Your task to perform on an android device: turn off location history Image 0: 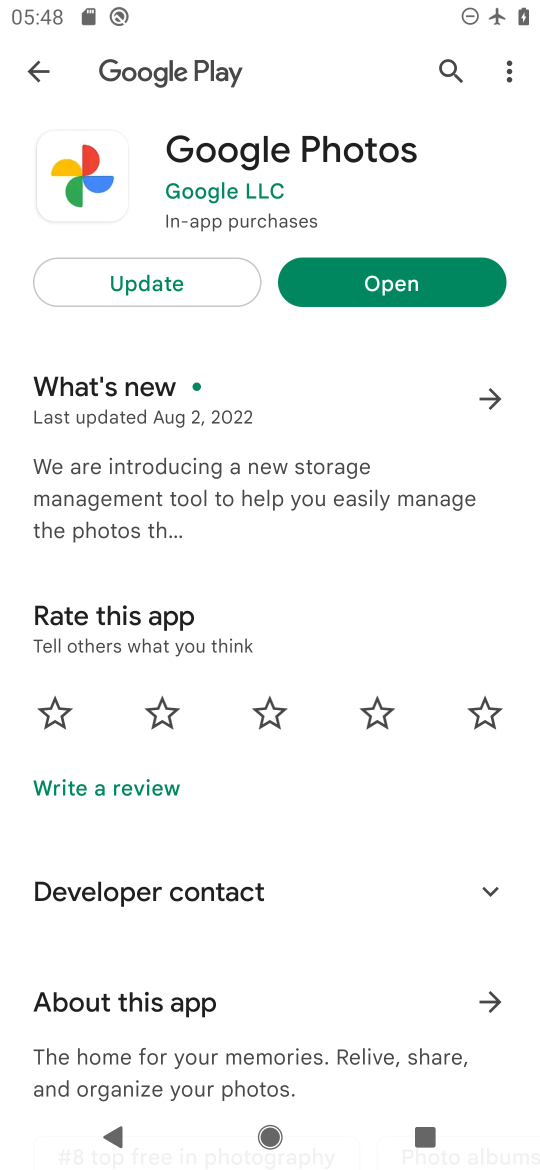
Step 0: press home button
Your task to perform on an android device: turn off location history Image 1: 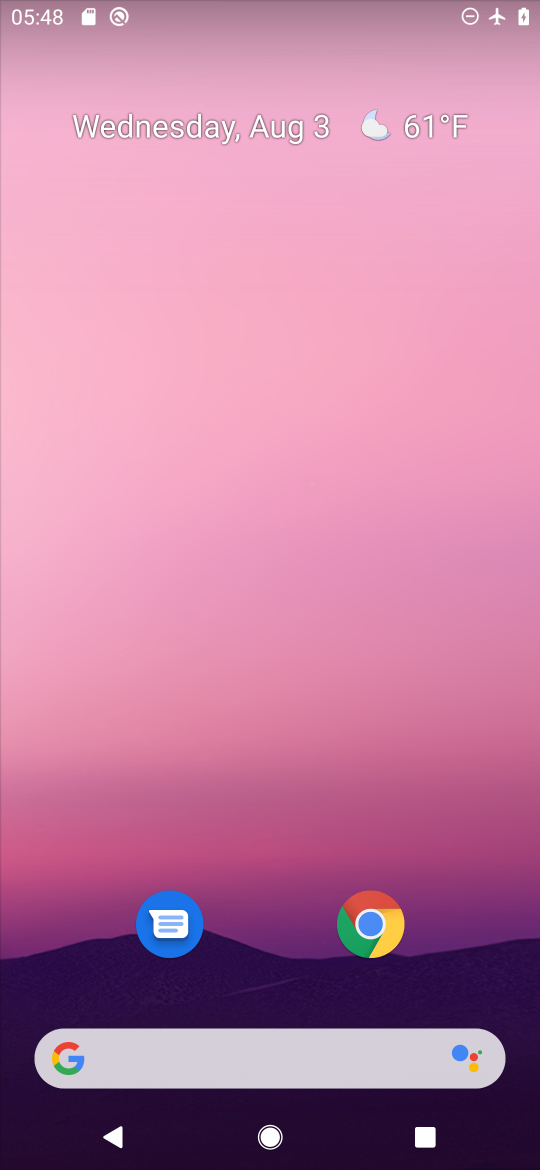
Step 1: drag from (274, 952) to (249, 222)
Your task to perform on an android device: turn off location history Image 2: 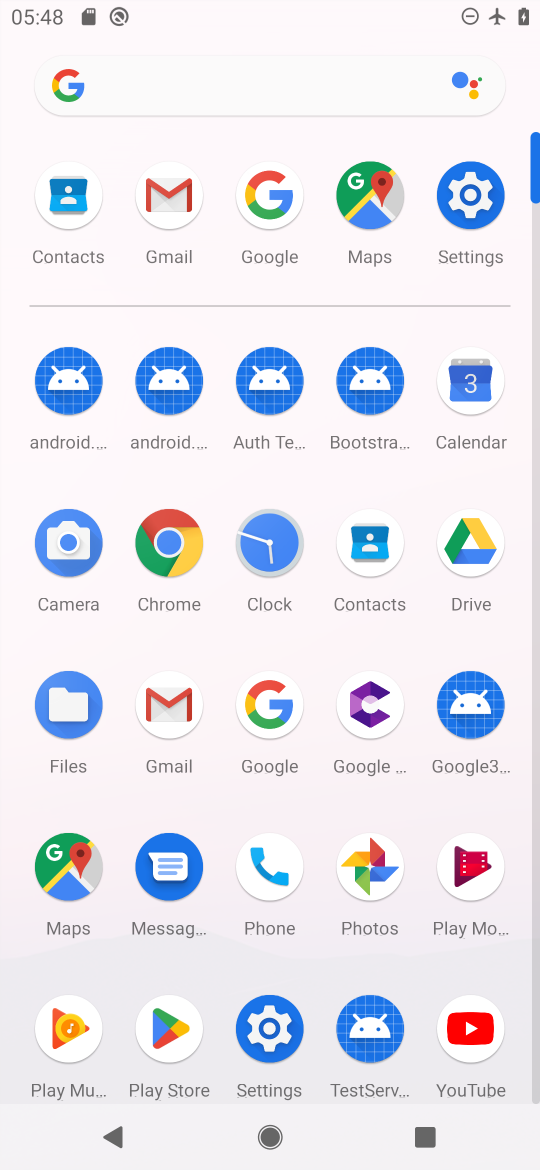
Step 2: click (485, 216)
Your task to perform on an android device: turn off location history Image 3: 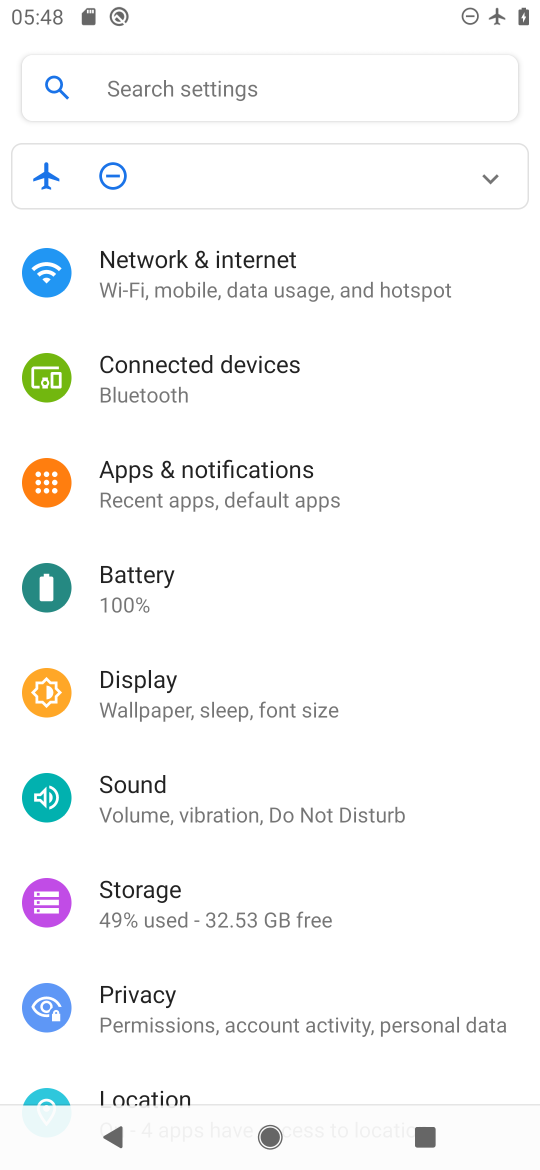
Step 3: drag from (292, 924) to (318, 439)
Your task to perform on an android device: turn off location history Image 4: 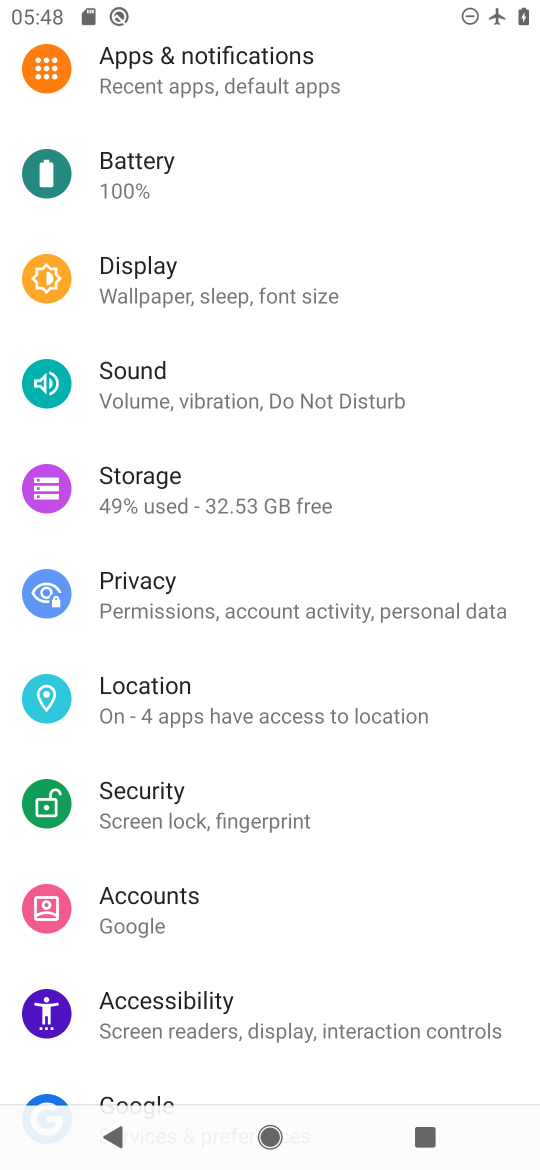
Step 4: click (275, 692)
Your task to perform on an android device: turn off location history Image 5: 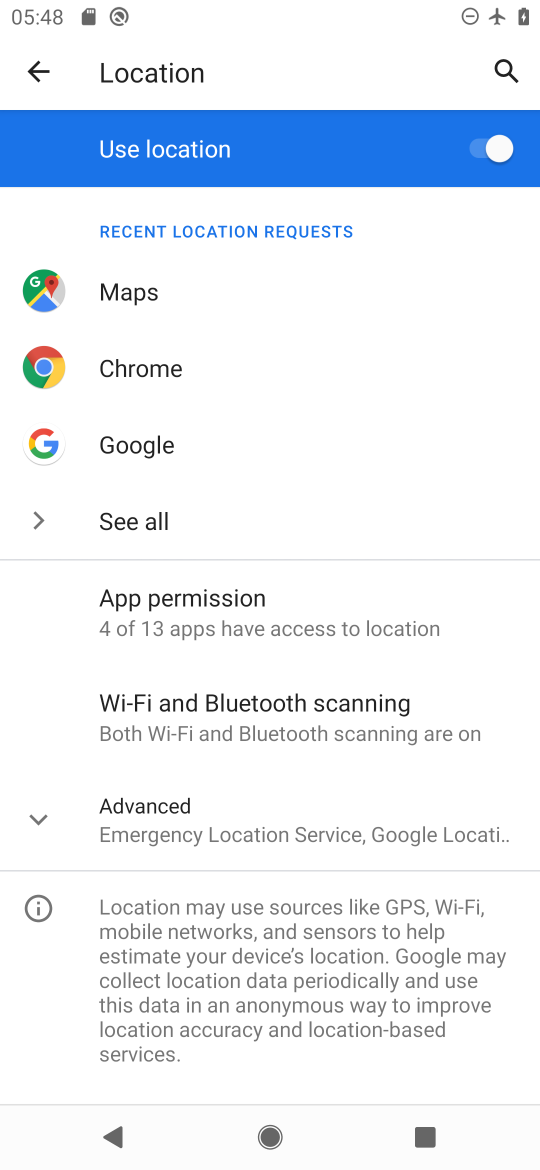
Step 5: click (230, 818)
Your task to perform on an android device: turn off location history Image 6: 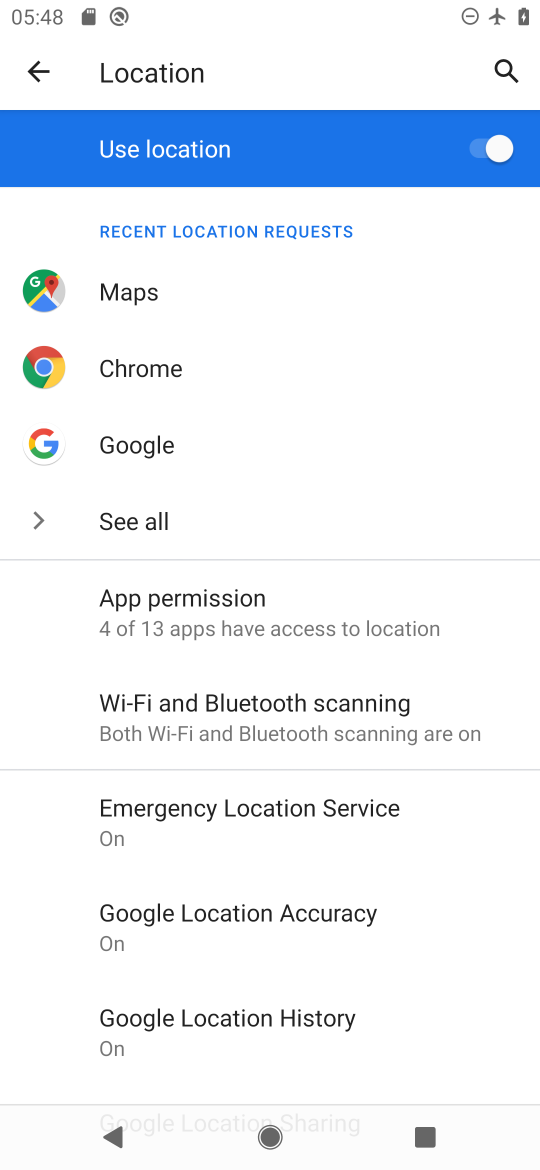
Step 6: click (341, 1030)
Your task to perform on an android device: turn off location history Image 7: 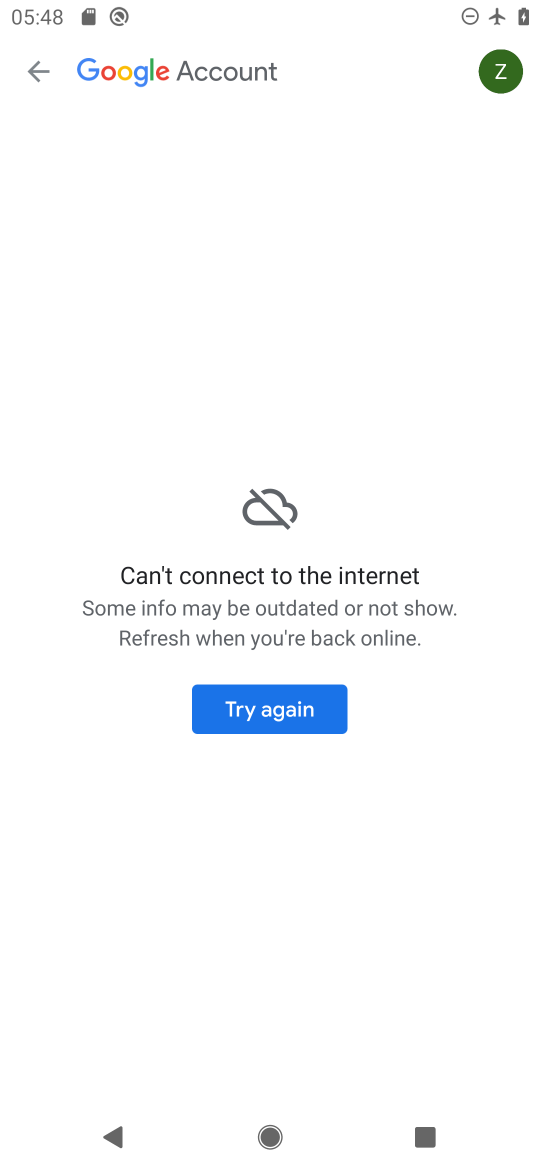
Step 7: task complete